Your task to perform on an android device: Open the calendar app, open the side menu, and click the "Day" option Image 0: 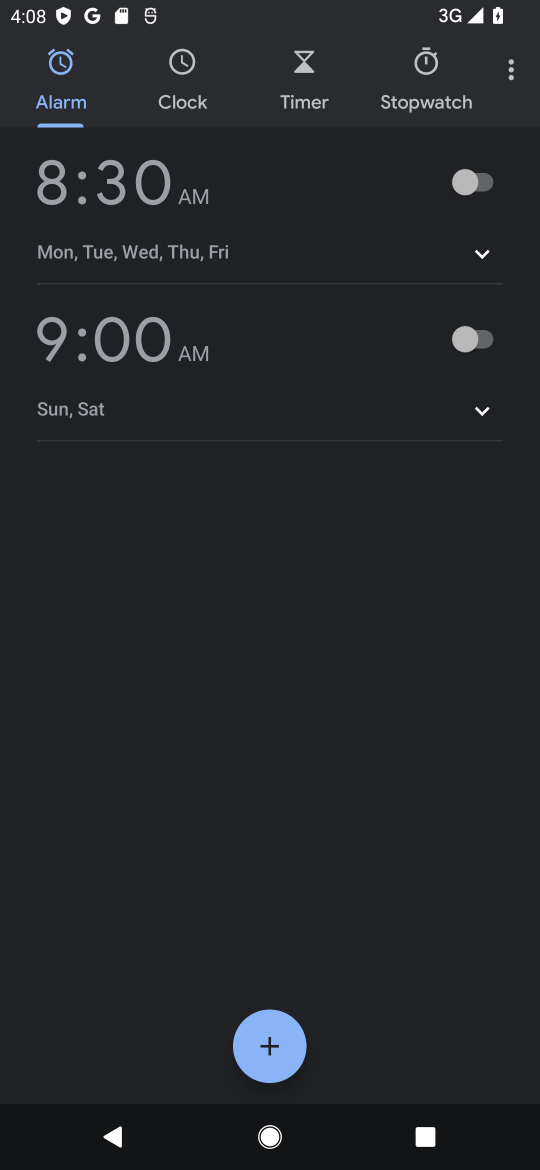
Step 0: press back button
Your task to perform on an android device: Open the calendar app, open the side menu, and click the "Day" option Image 1: 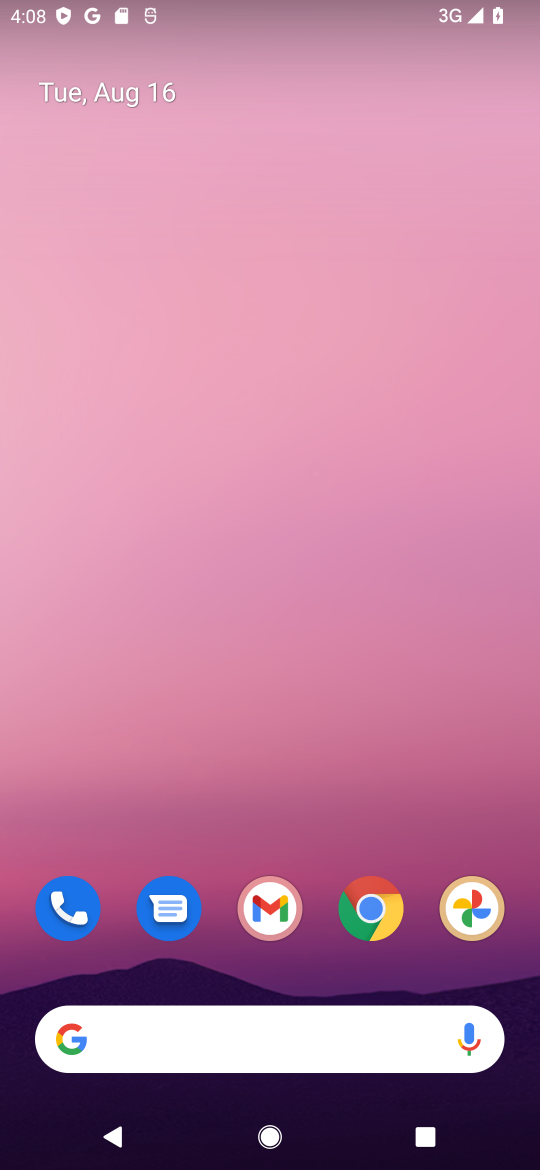
Step 1: drag from (235, 1004) to (368, 31)
Your task to perform on an android device: Open the calendar app, open the side menu, and click the "Day" option Image 2: 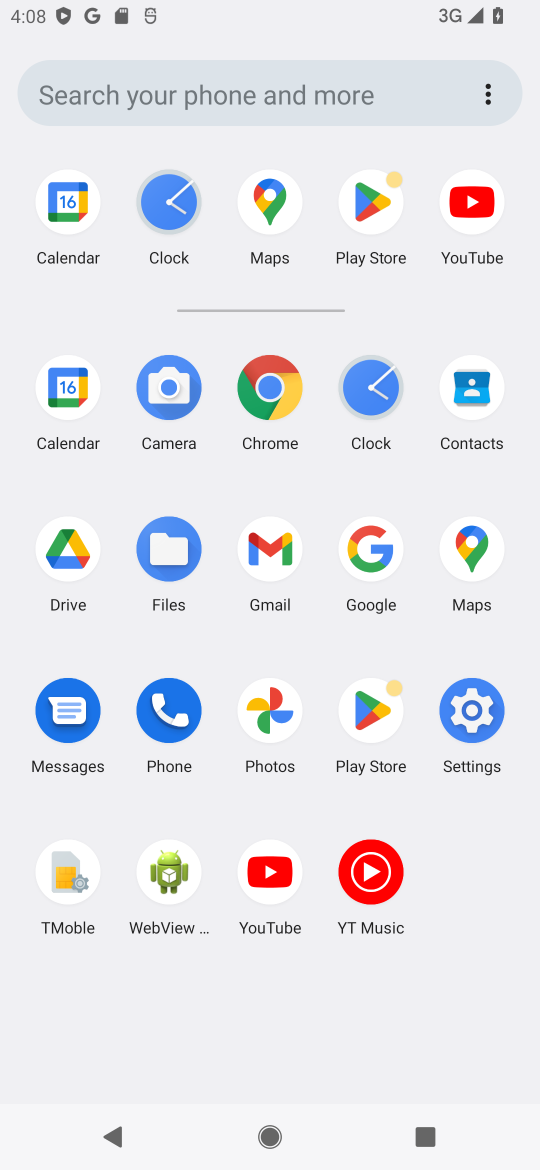
Step 2: click (64, 417)
Your task to perform on an android device: Open the calendar app, open the side menu, and click the "Day" option Image 3: 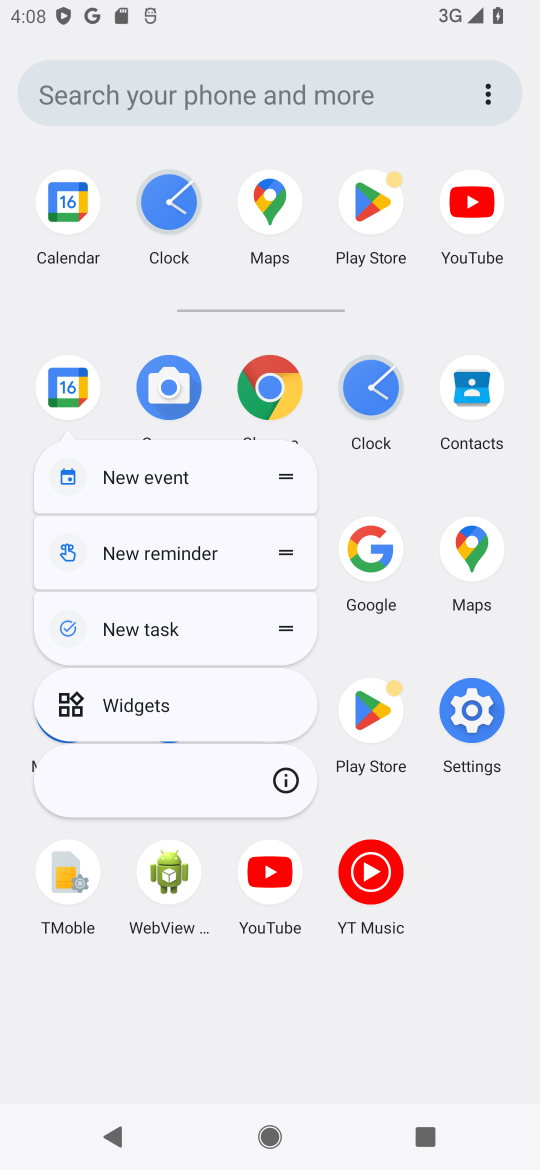
Step 3: click (76, 395)
Your task to perform on an android device: Open the calendar app, open the side menu, and click the "Day" option Image 4: 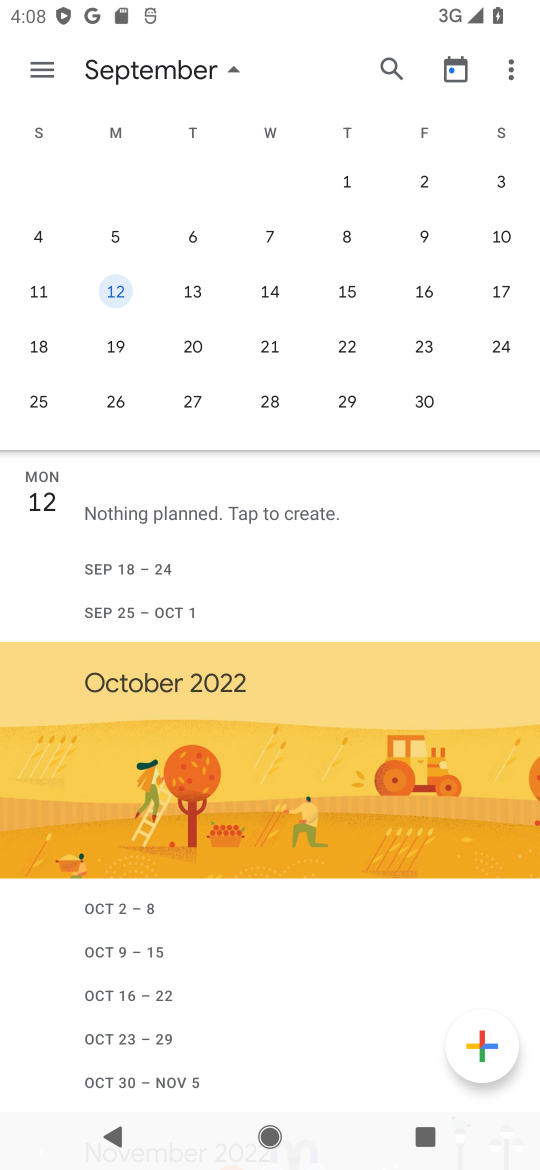
Step 4: click (43, 66)
Your task to perform on an android device: Open the calendar app, open the side menu, and click the "Day" option Image 5: 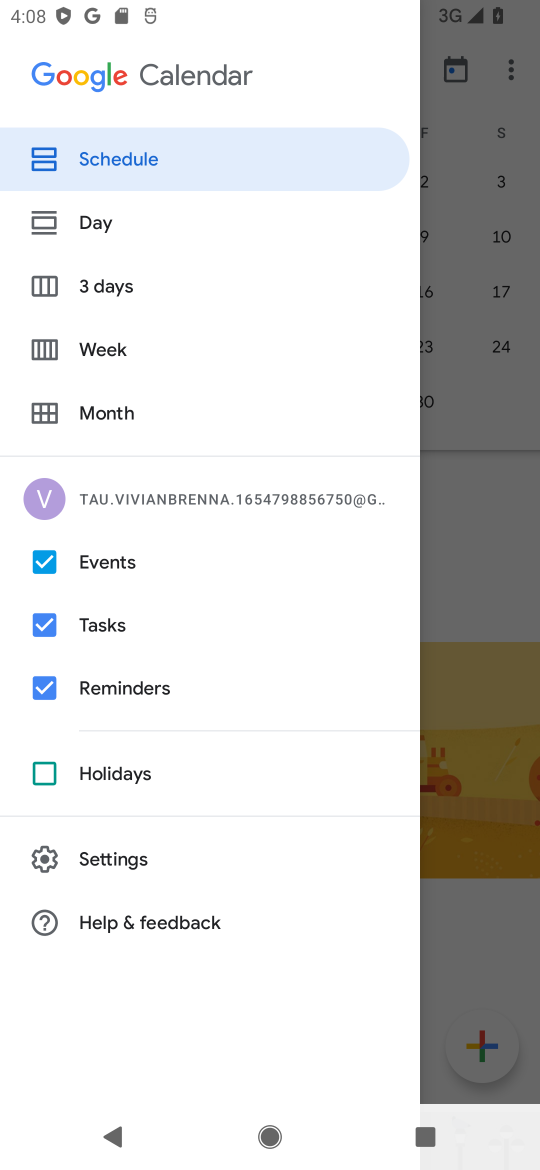
Step 5: click (115, 222)
Your task to perform on an android device: Open the calendar app, open the side menu, and click the "Day" option Image 6: 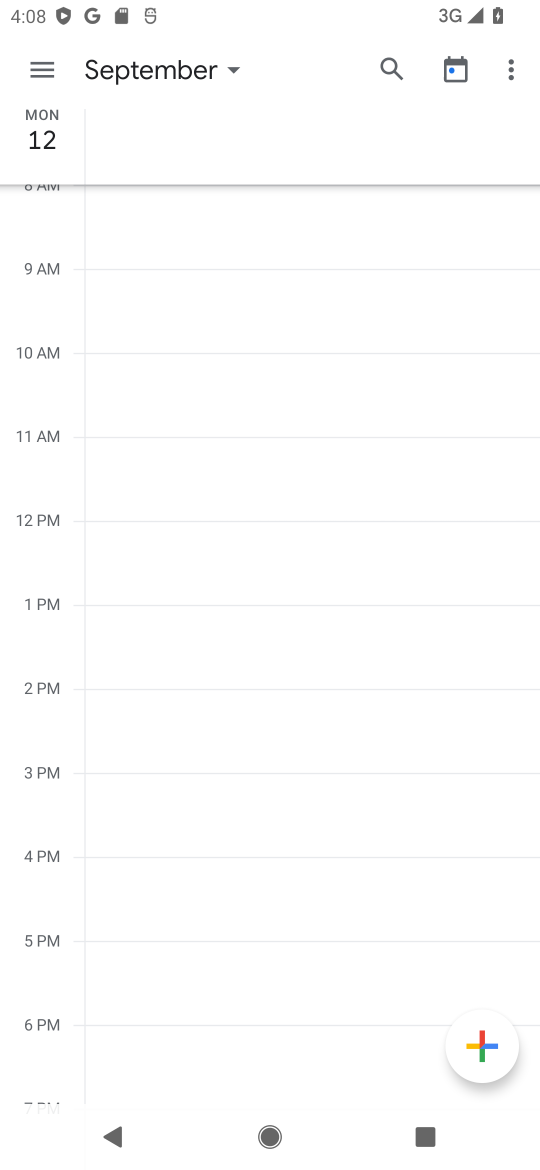
Step 6: task complete